Your task to perform on an android device: delete location history Image 0: 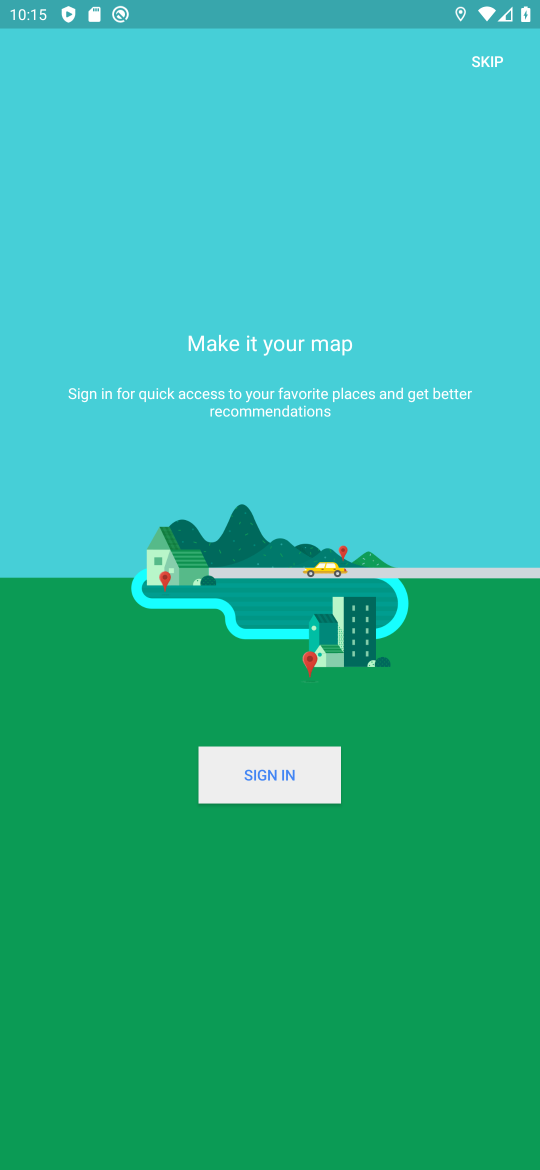
Step 0: press home button
Your task to perform on an android device: delete location history Image 1: 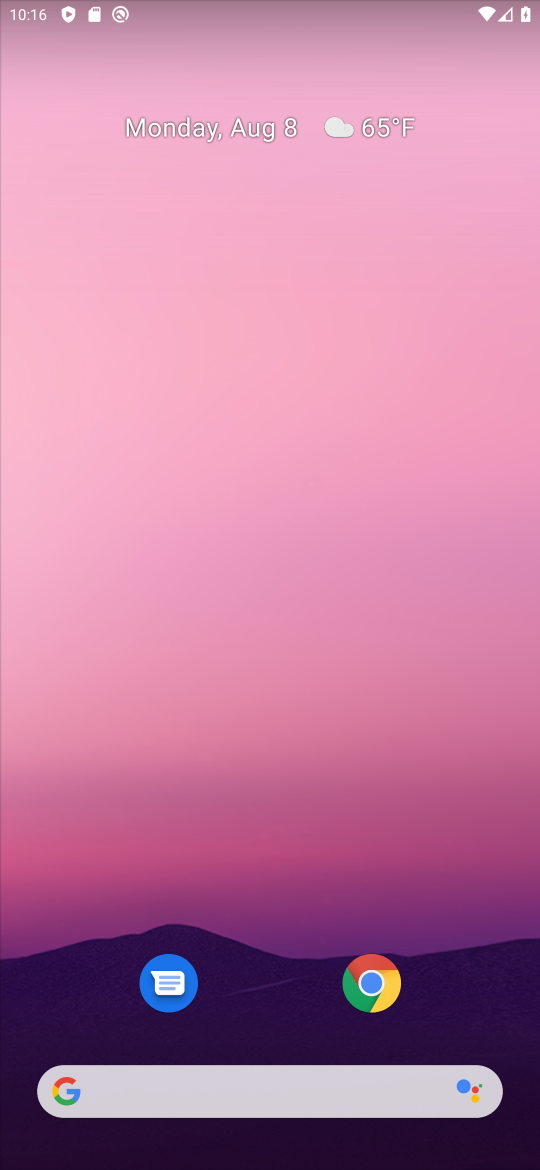
Step 1: drag from (295, 1036) to (312, 104)
Your task to perform on an android device: delete location history Image 2: 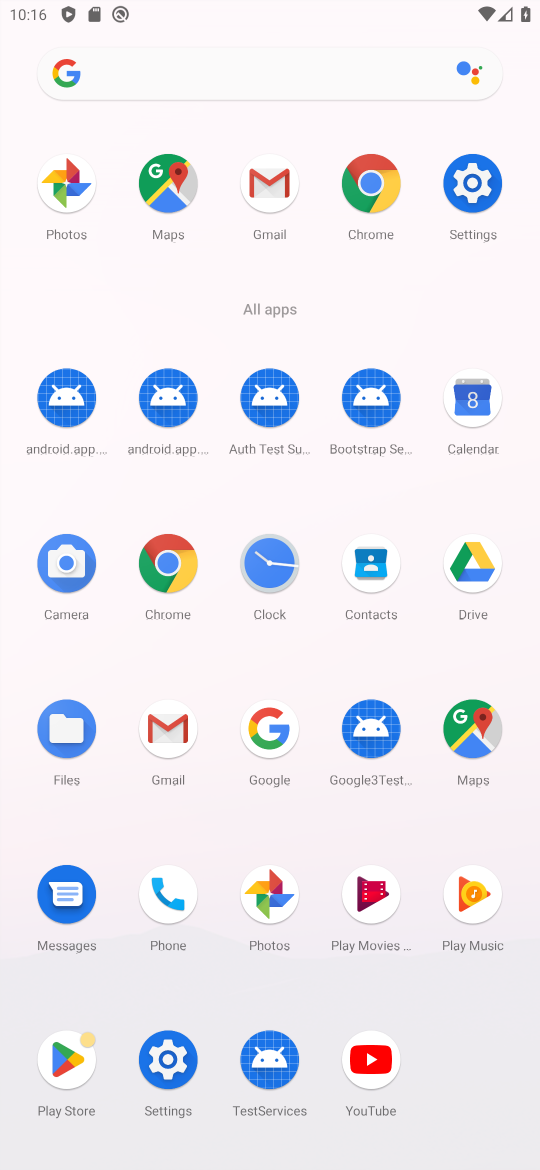
Step 2: click (456, 207)
Your task to perform on an android device: delete location history Image 3: 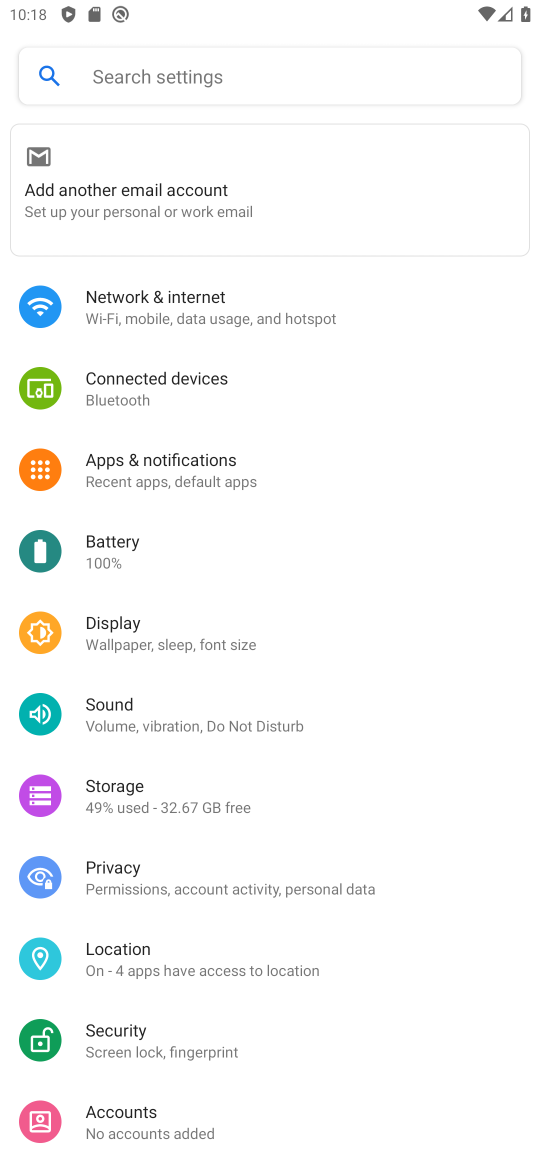
Step 3: click (121, 926)
Your task to perform on an android device: delete location history Image 4: 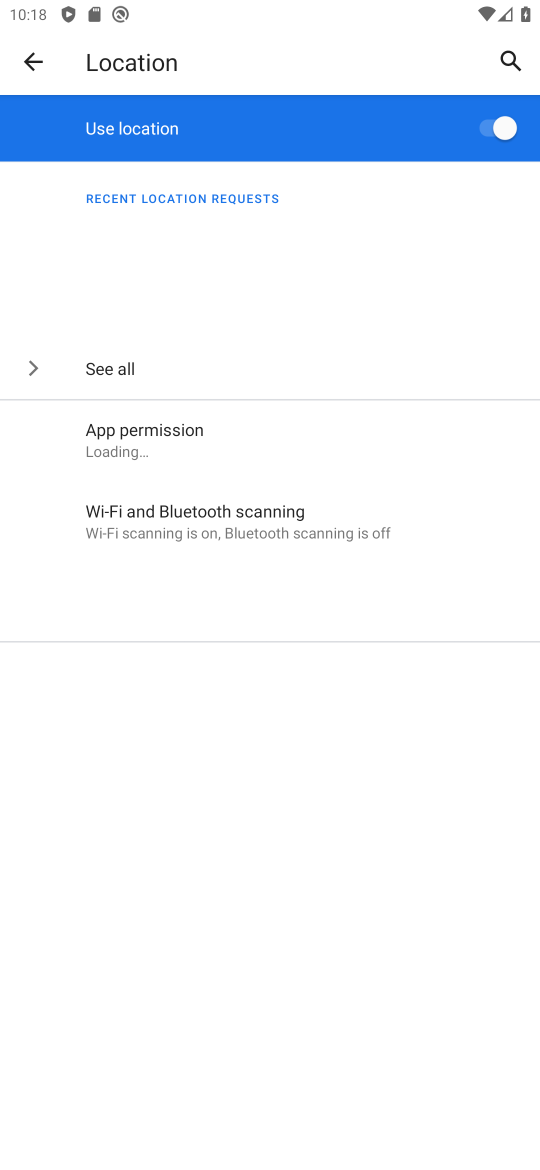
Step 4: task complete